Your task to perform on an android device: Toggle the flashlight Image 0: 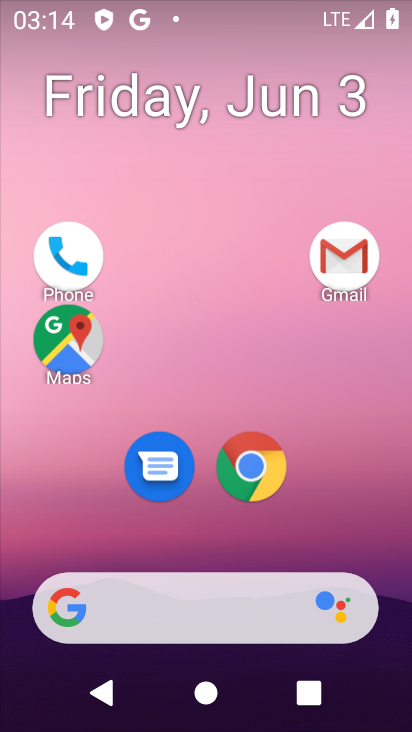
Step 0: drag from (221, 41) to (168, 14)
Your task to perform on an android device: Toggle the flashlight Image 1: 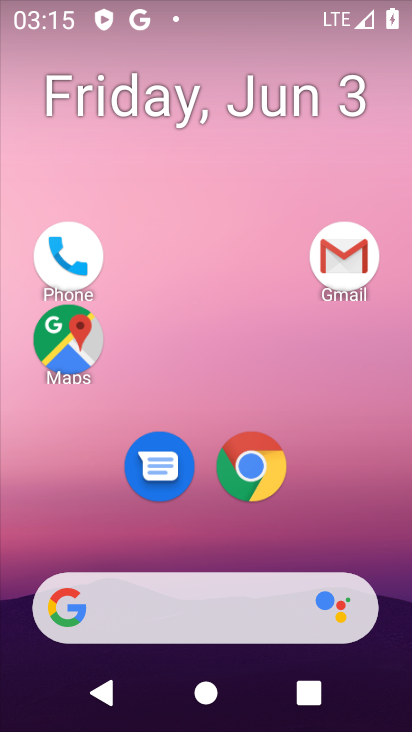
Step 1: task complete